Your task to perform on an android device: Open maps Image 0: 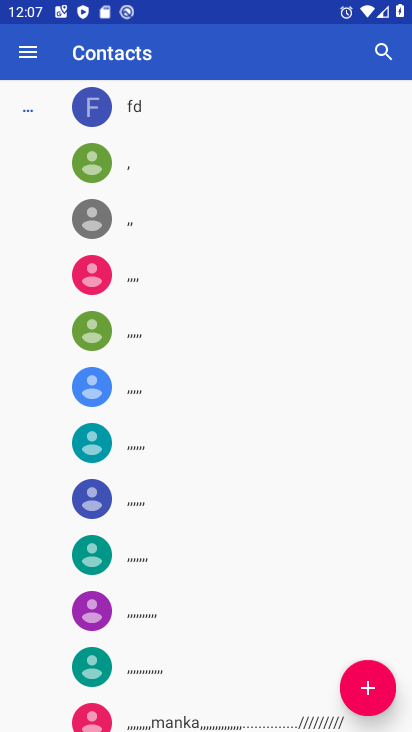
Step 0: press back button
Your task to perform on an android device: Open maps Image 1: 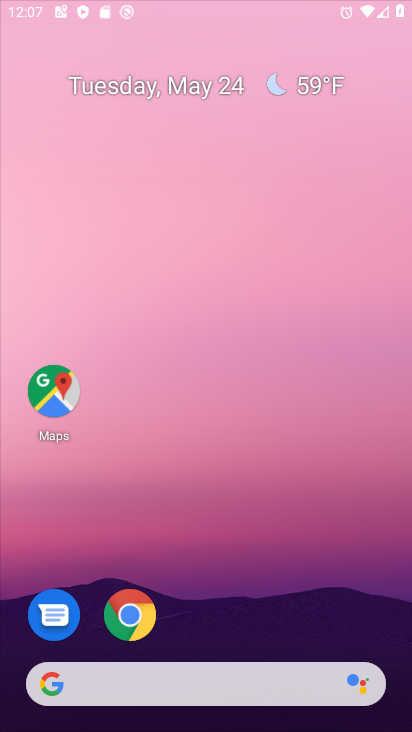
Step 1: press home button
Your task to perform on an android device: Open maps Image 2: 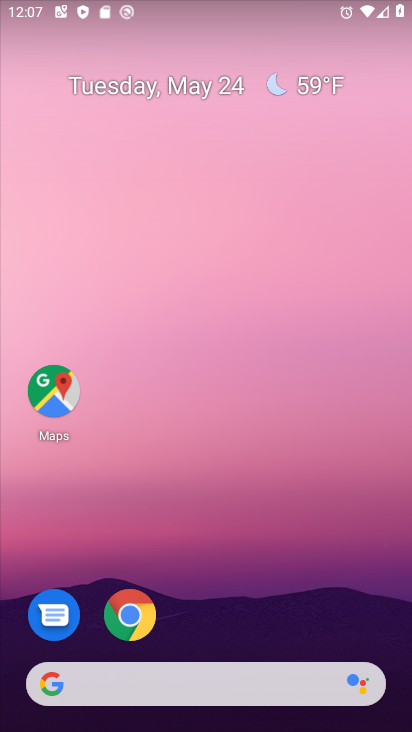
Step 2: drag from (253, 534) to (213, 63)
Your task to perform on an android device: Open maps Image 3: 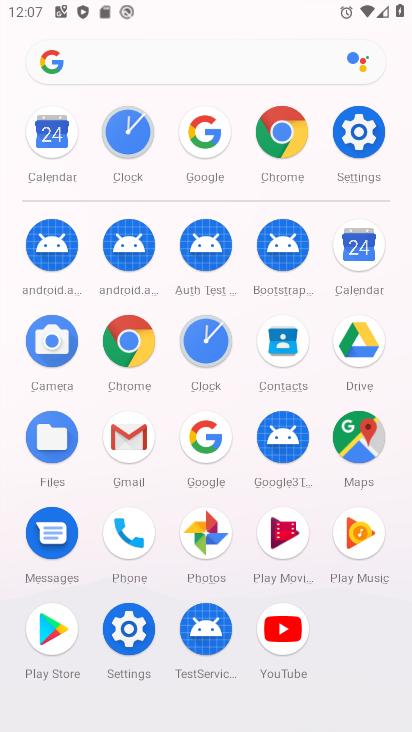
Step 3: click (360, 433)
Your task to perform on an android device: Open maps Image 4: 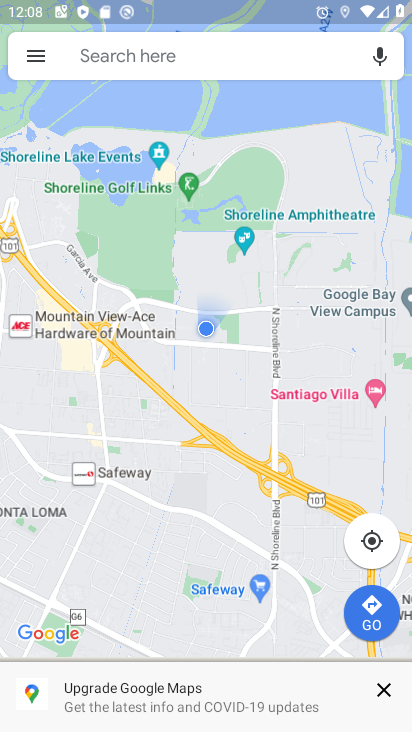
Step 4: task complete